Your task to perform on an android device: show emergency info Image 0: 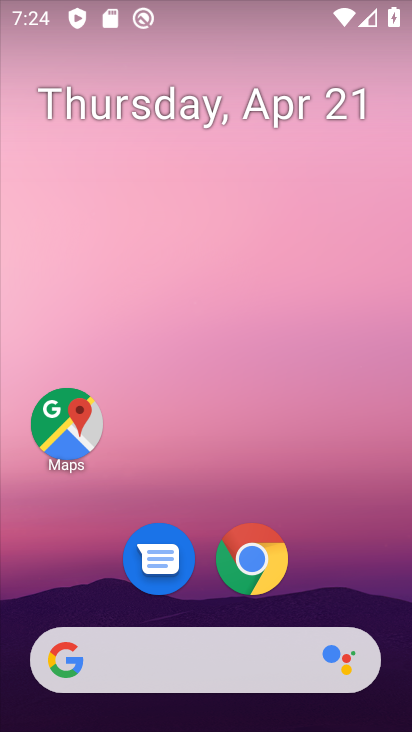
Step 0: drag from (384, 579) to (354, 155)
Your task to perform on an android device: show emergency info Image 1: 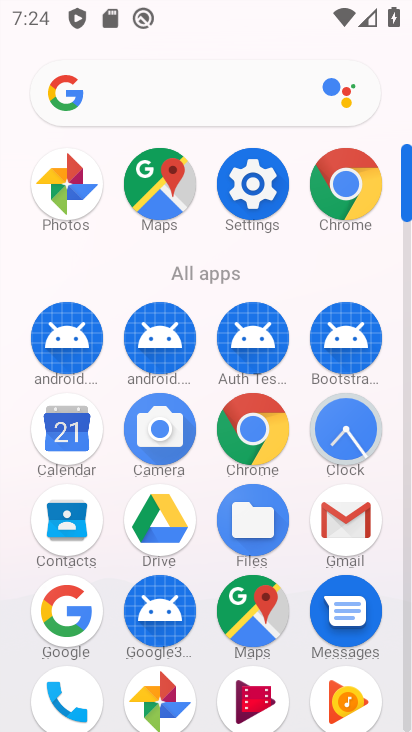
Step 1: click (271, 180)
Your task to perform on an android device: show emergency info Image 2: 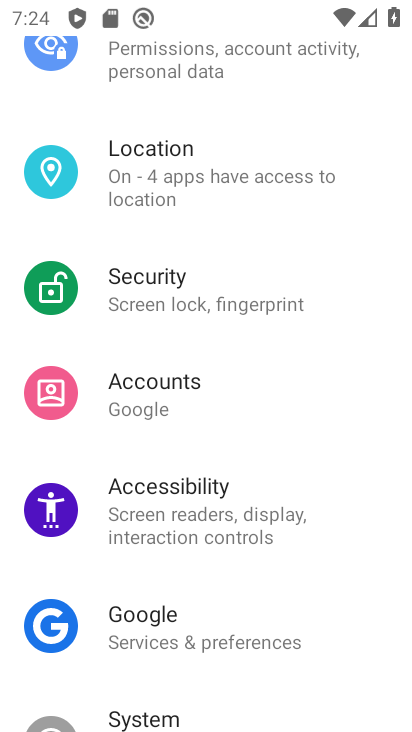
Step 2: drag from (325, 640) to (369, 276)
Your task to perform on an android device: show emergency info Image 3: 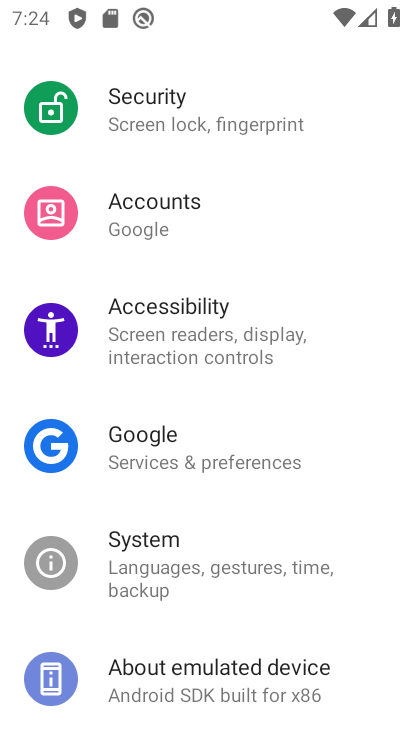
Step 3: click (294, 672)
Your task to perform on an android device: show emergency info Image 4: 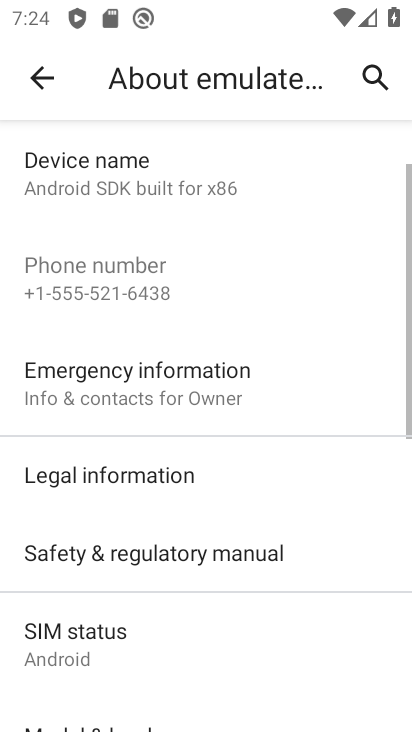
Step 4: click (221, 371)
Your task to perform on an android device: show emergency info Image 5: 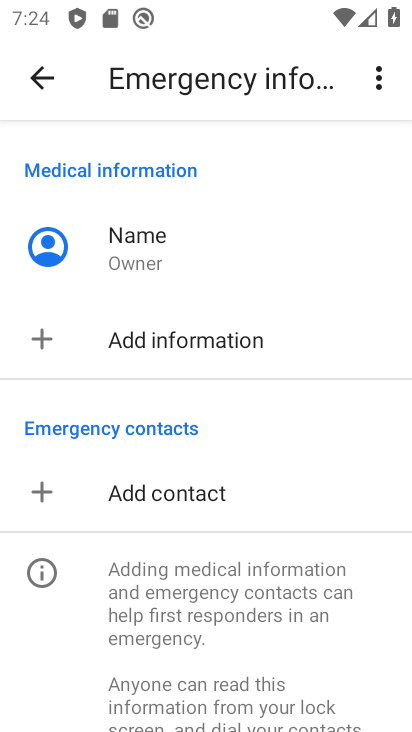
Step 5: task complete